Your task to perform on an android device: Show the shopping cart on newegg.com. Add "lg ultragear" to the cart on newegg.com, then select checkout. Image 0: 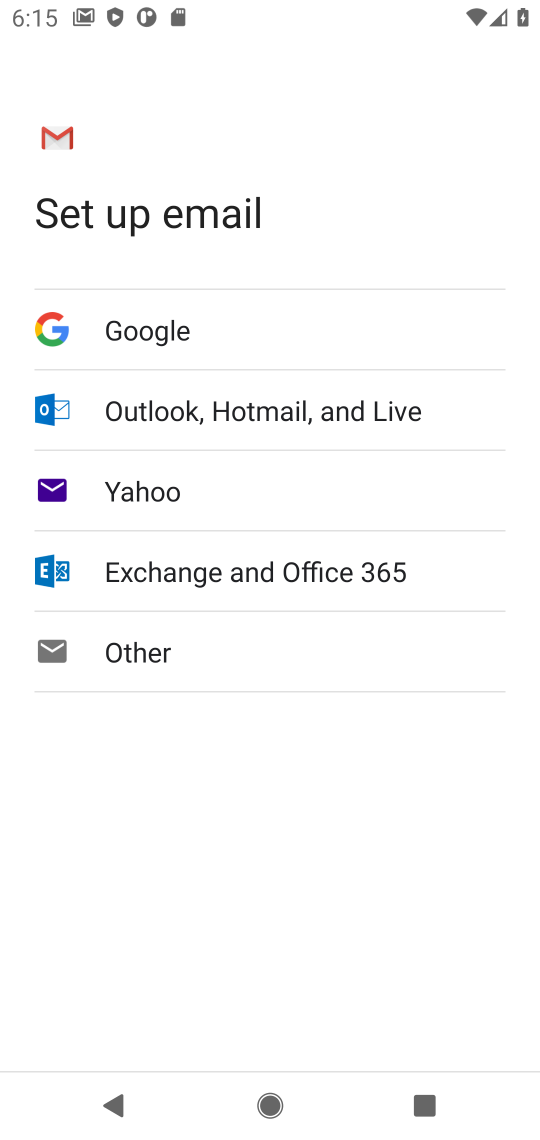
Step 0: press home button
Your task to perform on an android device: Show the shopping cart on newegg.com. Add "lg ultragear" to the cart on newegg.com, then select checkout. Image 1: 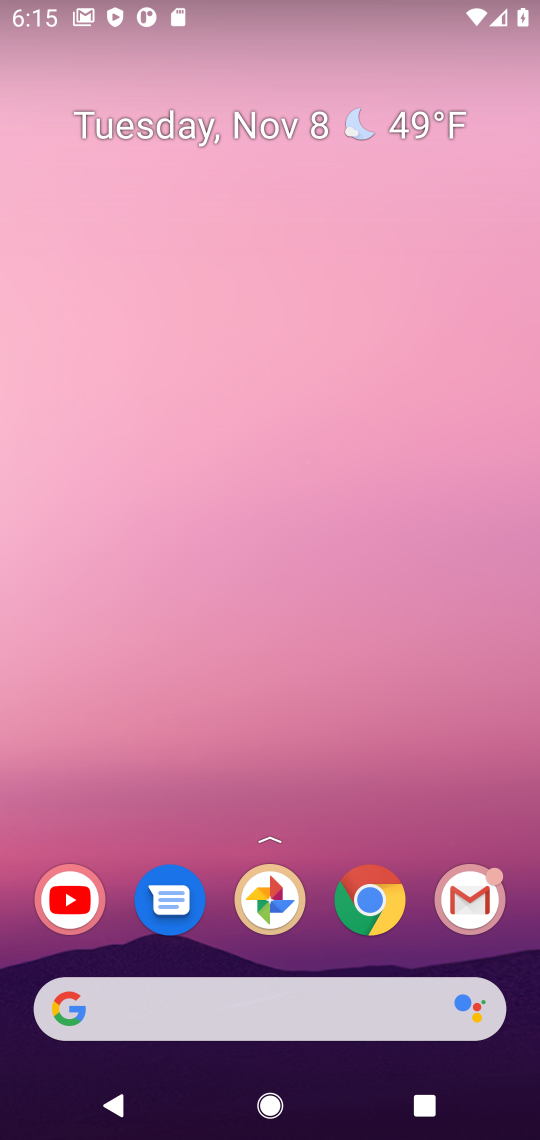
Step 1: click (372, 912)
Your task to perform on an android device: Show the shopping cart on newegg.com. Add "lg ultragear" to the cart on newegg.com, then select checkout. Image 2: 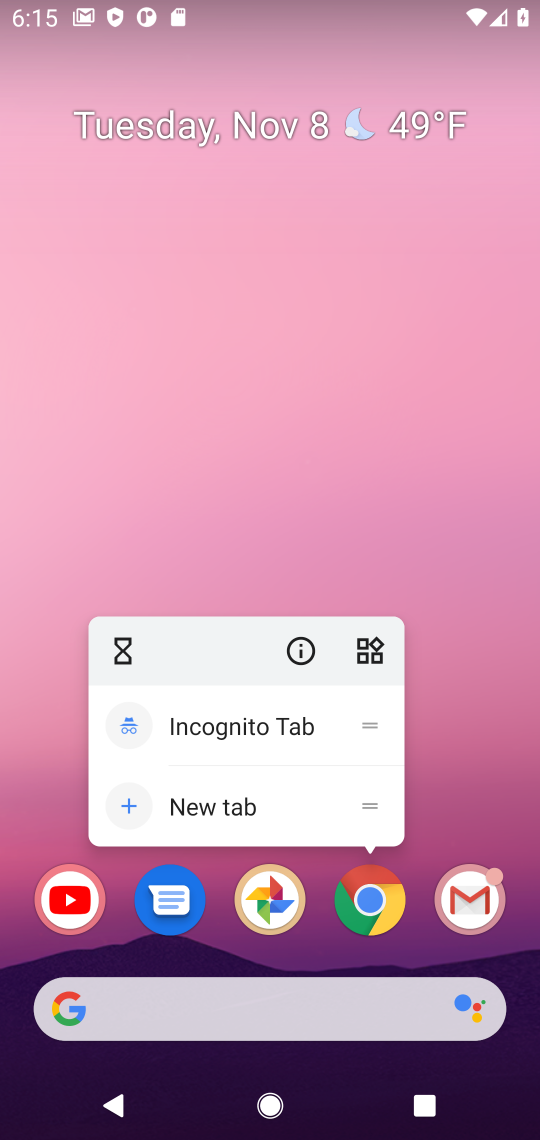
Step 2: click (381, 918)
Your task to perform on an android device: Show the shopping cart on newegg.com. Add "lg ultragear" to the cart on newegg.com, then select checkout. Image 3: 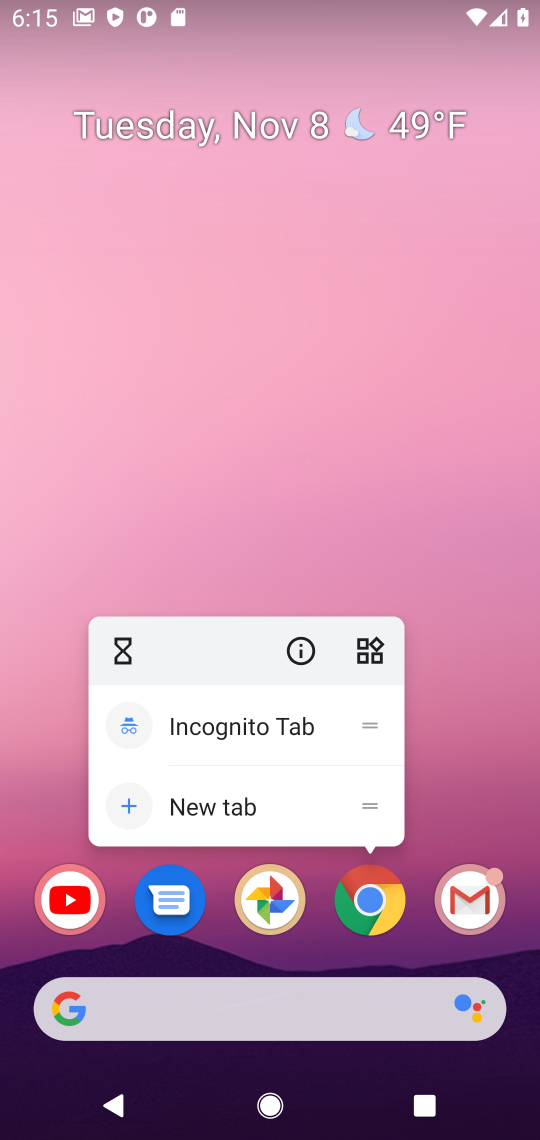
Step 3: click (399, 910)
Your task to perform on an android device: Show the shopping cart on newegg.com. Add "lg ultragear" to the cart on newegg.com, then select checkout. Image 4: 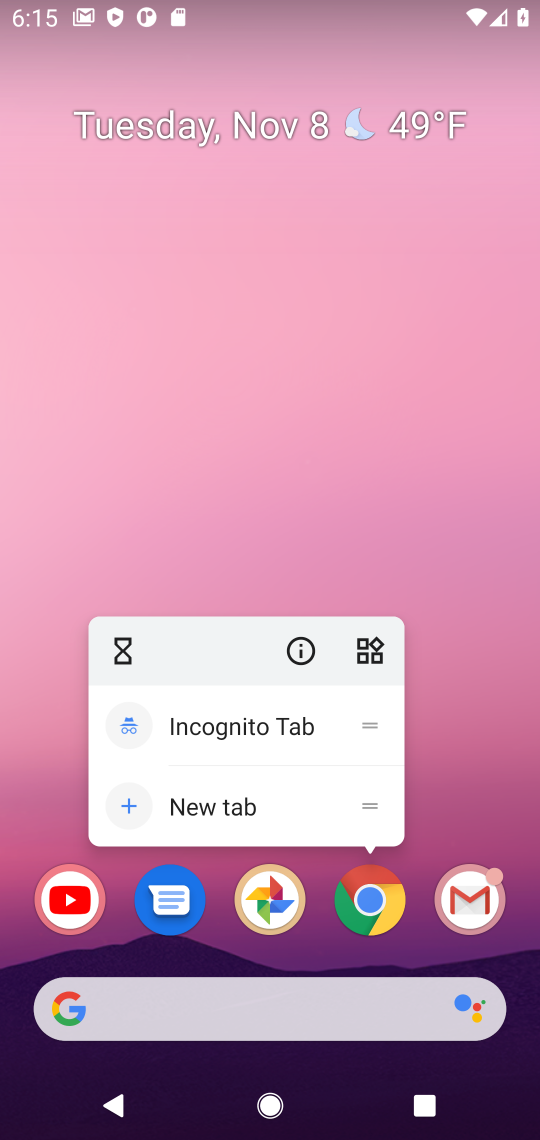
Step 4: click (370, 914)
Your task to perform on an android device: Show the shopping cart on newegg.com. Add "lg ultragear" to the cart on newegg.com, then select checkout. Image 5: 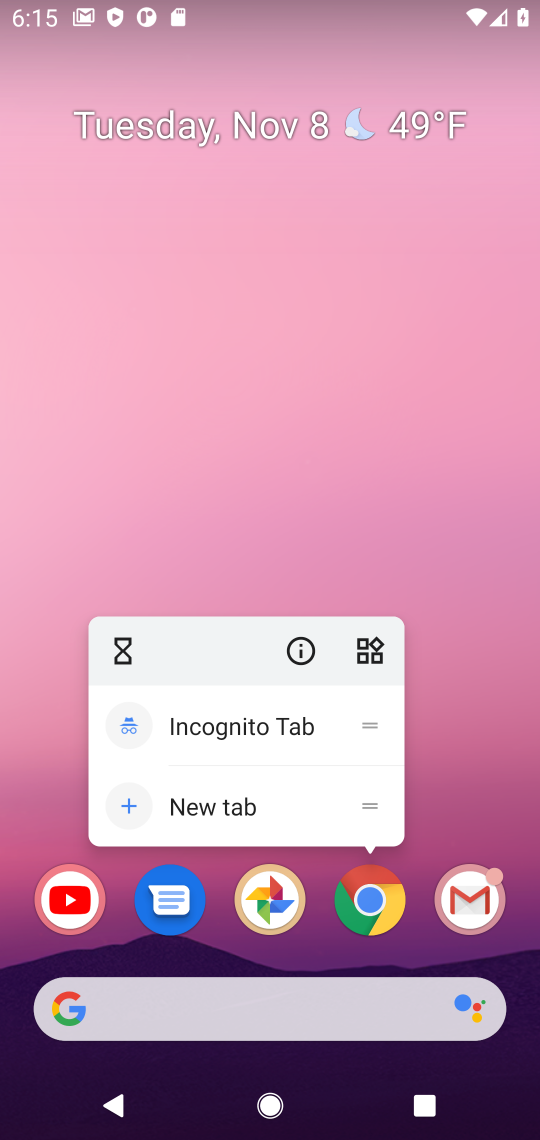
Step 5: click (356, 918)
Your task to perform on an android device: Show the shopping cart on newegg.com. Add "lg ultragear" to the cart on newegg.com, then select checkout. Image 6: 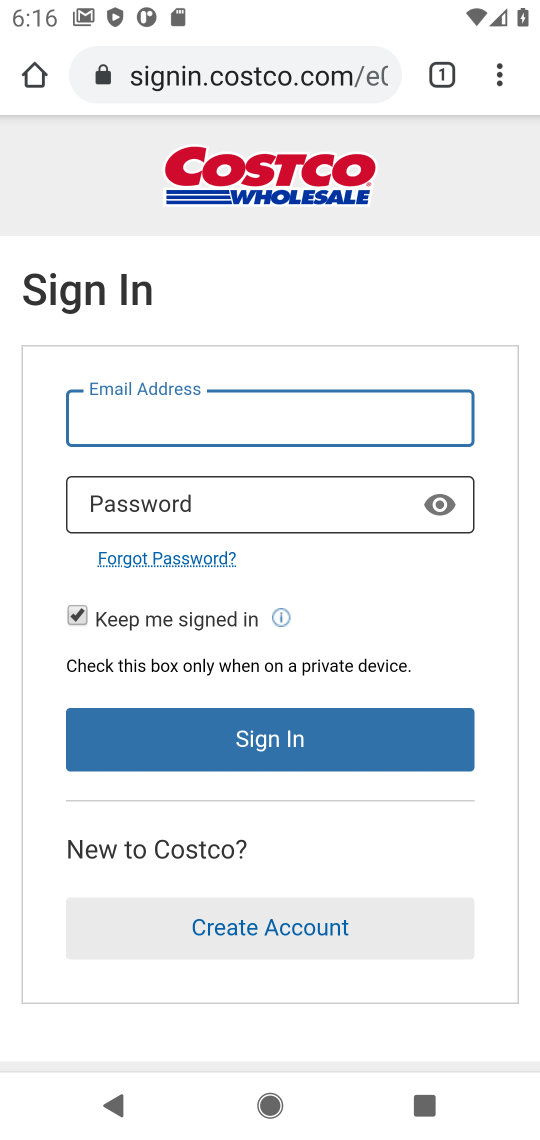
Step 6: click (264, 66)
Your task to perform on an android device: Show the shopping cart on newegg.com. Add "lg ultragear" to the cart on newegg.com, then select checkout. Image 7: 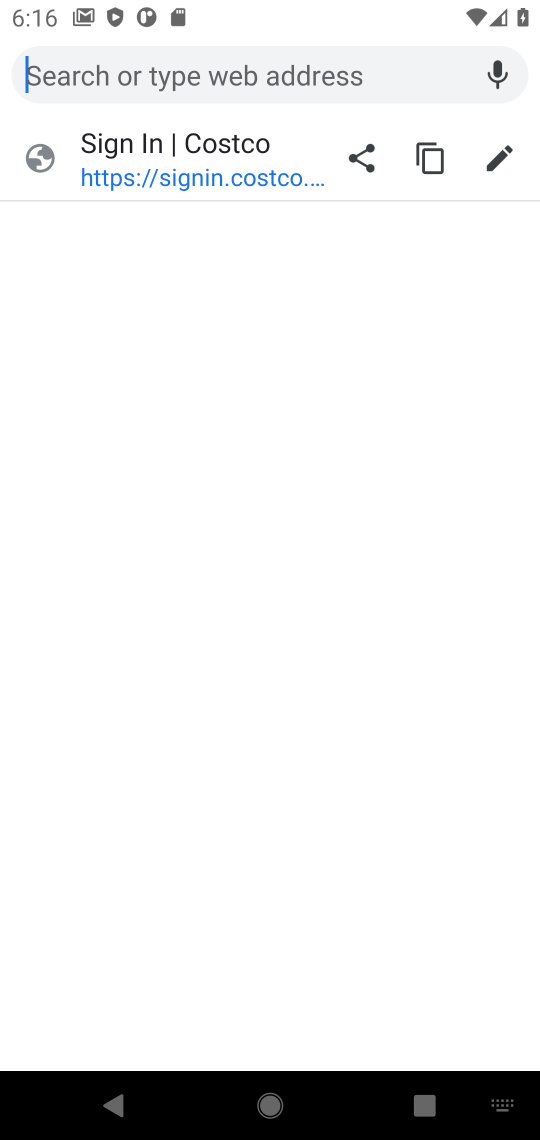
Step 7: type "newegg.com"
Your task to perform on an android device: Show the shopping cart on newegg.com. Add "lg ultragear" to the cart on newegg.com, then select checkout. Image 8: 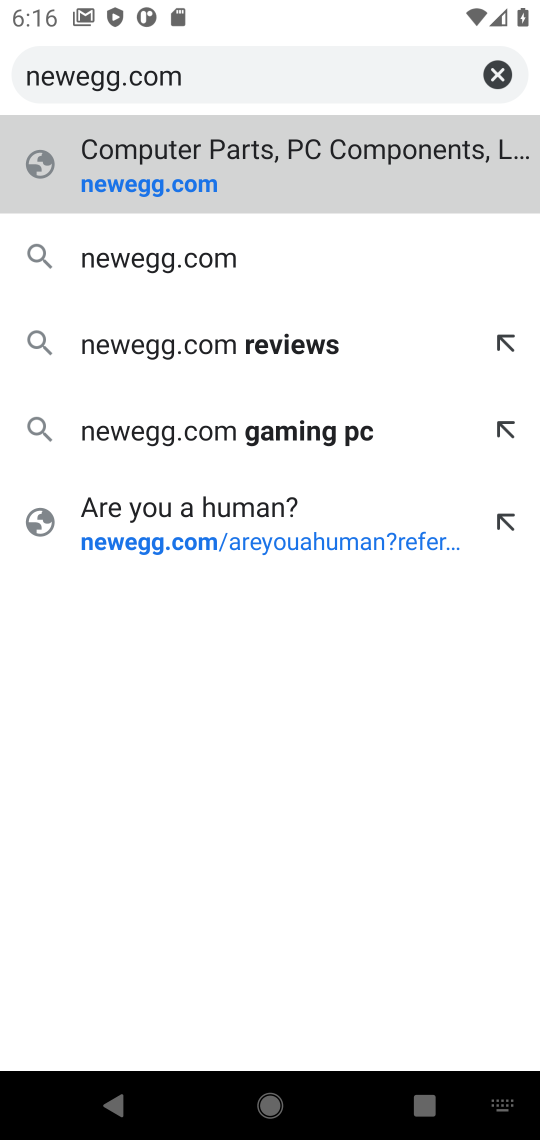
Step 8: type ""
Your task to perform on an android device: Show the shopping cart on newegg.com. Add "lg ultragear" to the cart on newegg.com, then select checkout. Image 9: 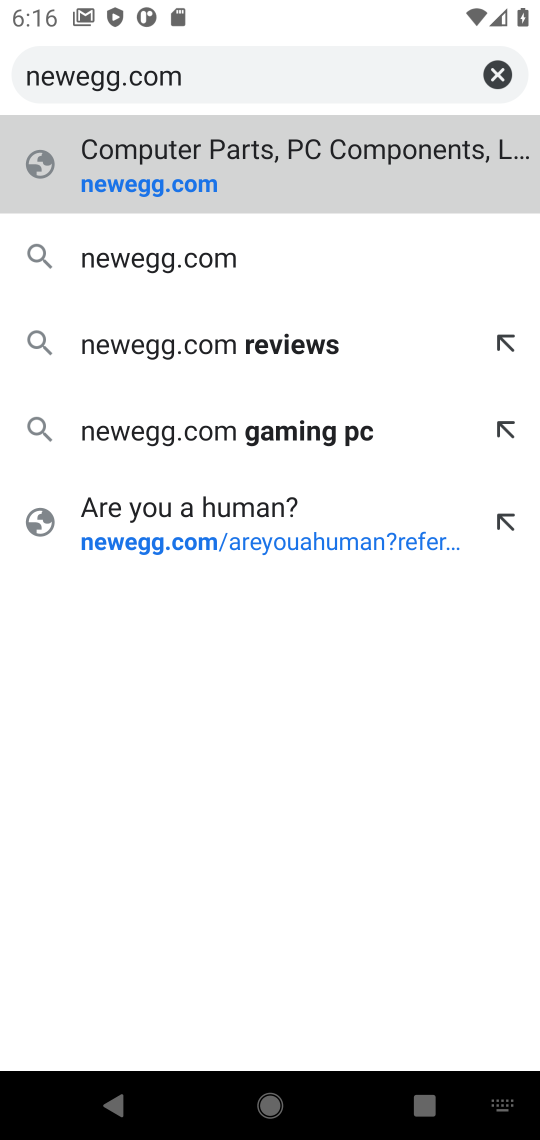
Step 9: press enter
Your task to perform on an android device: Show the shopping cart on newegg.com. Add "lg ultragear" to the cart on newegg.com, then select checkout. Image 10: 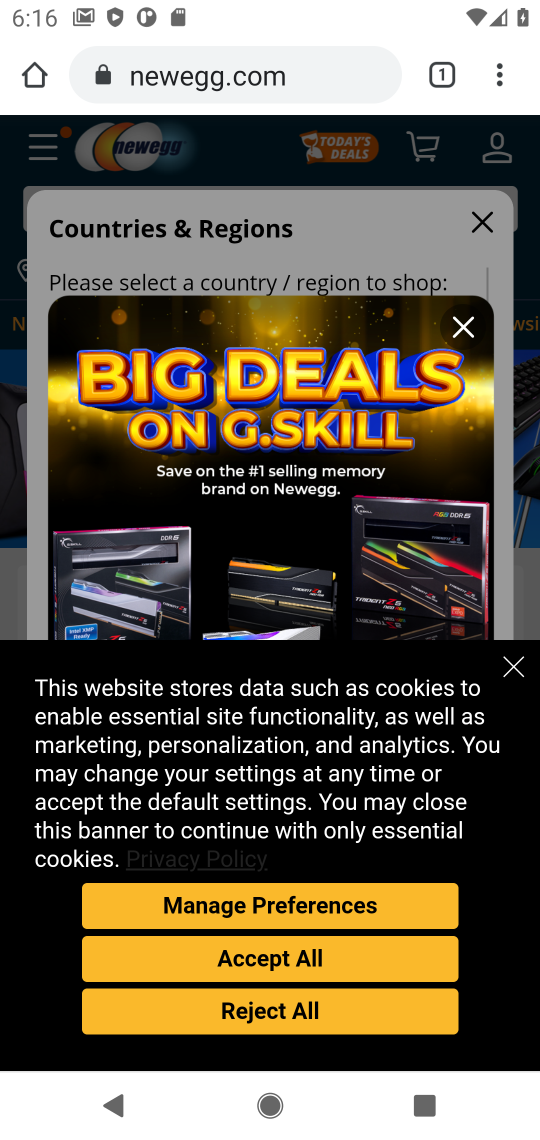
Step 10: click (362, 959)
Your task to perform on an android device: Show the shopping cart on newegg.com. Add "lg ultragear" to the cart on newegg.com, then select checkout. Image 11: 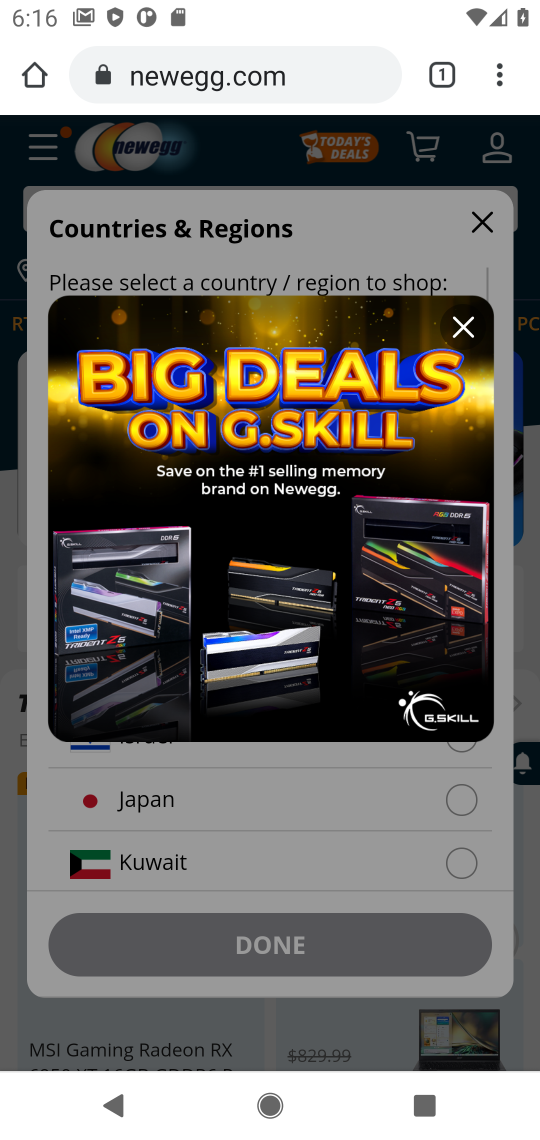
Step 11: click (466, 330)
Your task to perform on an android device: Show the shopping cart on newegg.com. Add "lg ultragear" to the cart on newegg.com, then select checkout. Image 12: 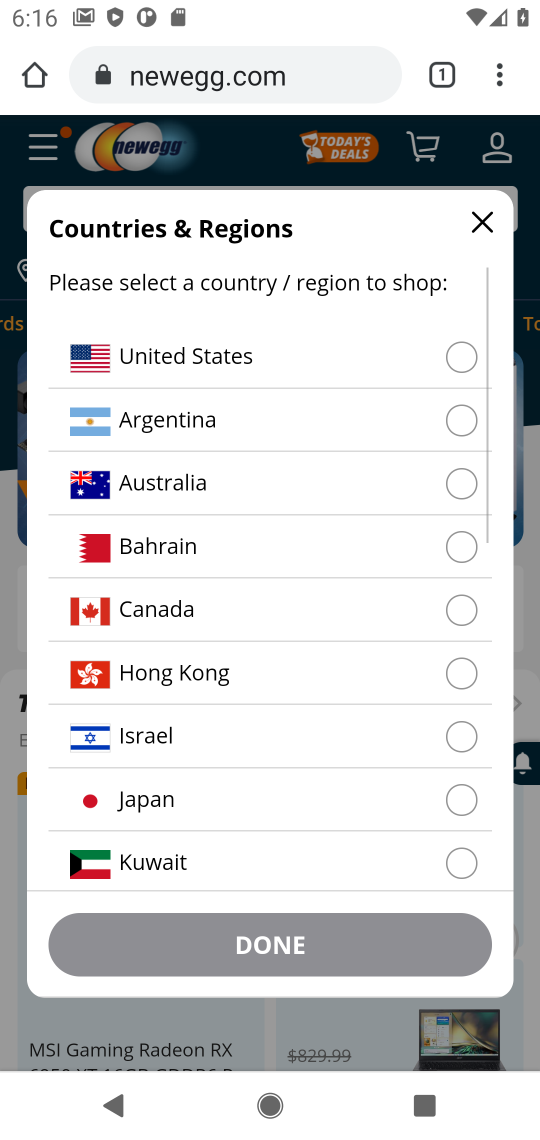
Step 12: click (464, 362)
Your task to perform on an android device: Show the shopping cart on newegg.com. Add "lg ultragear" to the cart on newegg.com, then select checkout. Image 13: 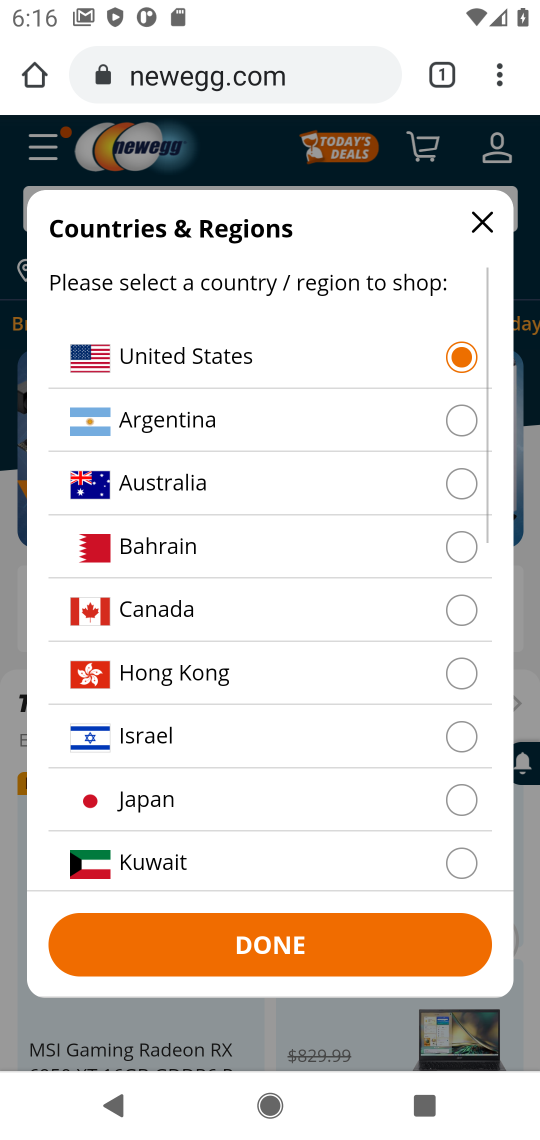
Step 13: click (305, 960)
Your task to perform on an android device: Show the shopping cart on newegg.com. Add "lg ultragear" to the cart on newegg.com, then select checkout. Image 14: 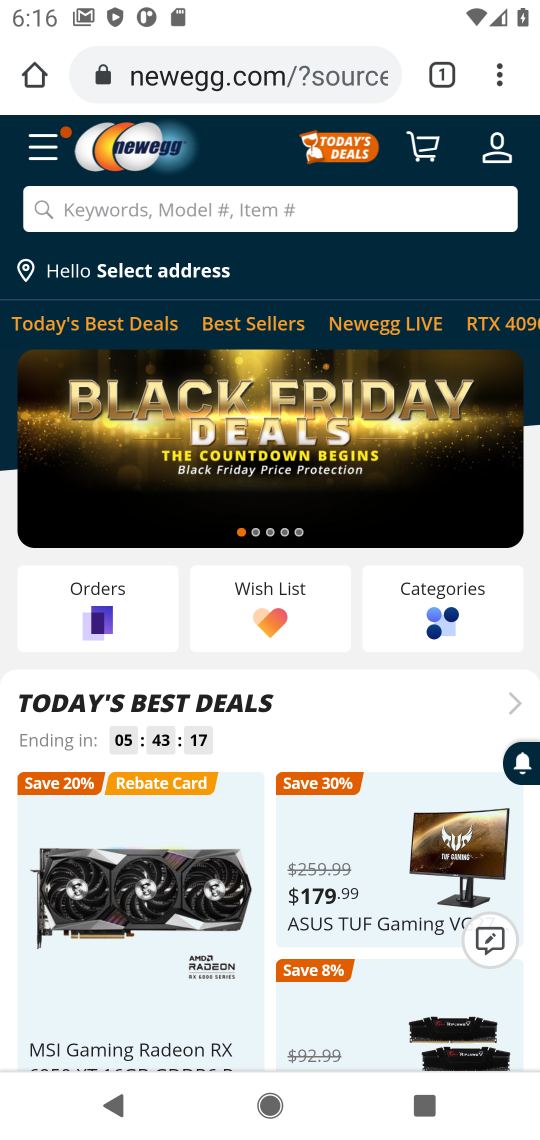
Step 14: click (436, 148)
Your task to perform on an android device: Show the shopping cart on newegg.com. Add "lg ultragear" to the cart on newegg.com, then select checkout. Image 15: 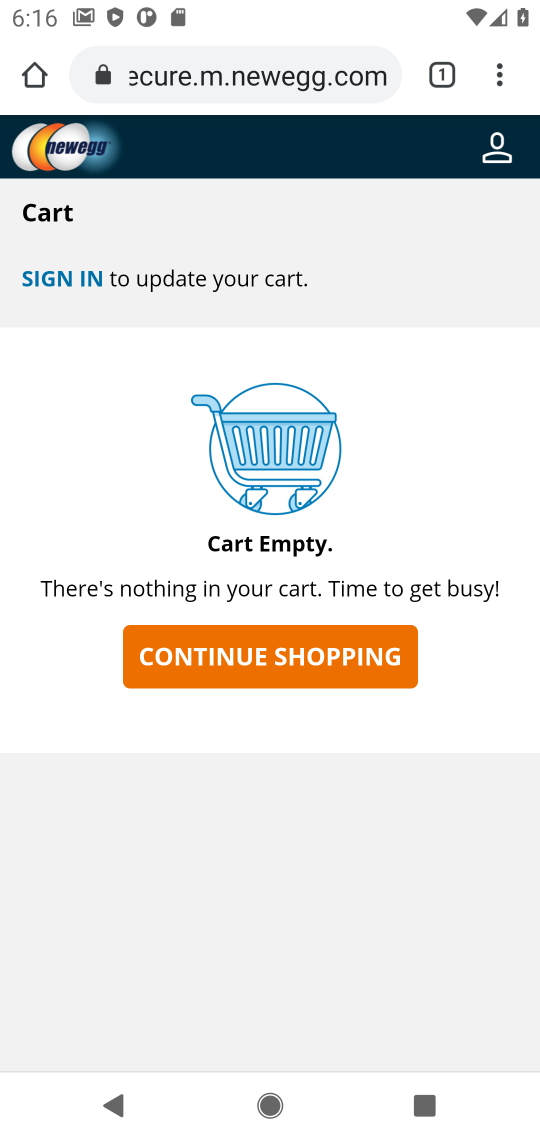
Step 15: click (300, 663)
Your task to perform on an android device: Show the shopping cart on newegg.com. Add "lg ultragear" to the cart on newegg.com, then select checkout. Image 16: 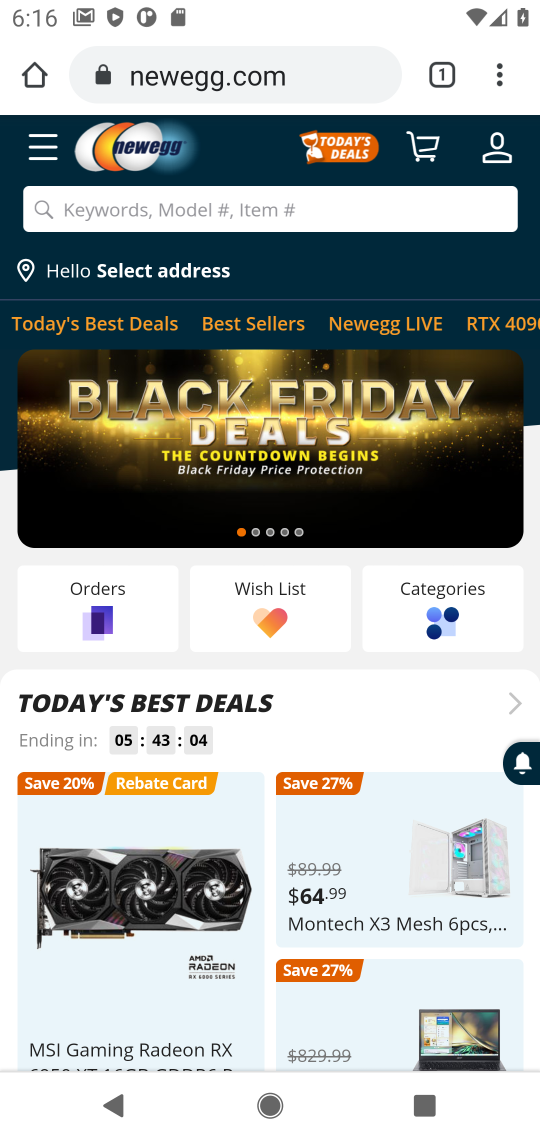
Step 16: click (253, 203)
Your task to perform on an android device: Show the shopping cart on newegg.com. Add "lg ultragear" to the cart on newegg.com, then select checkout. Image 17: 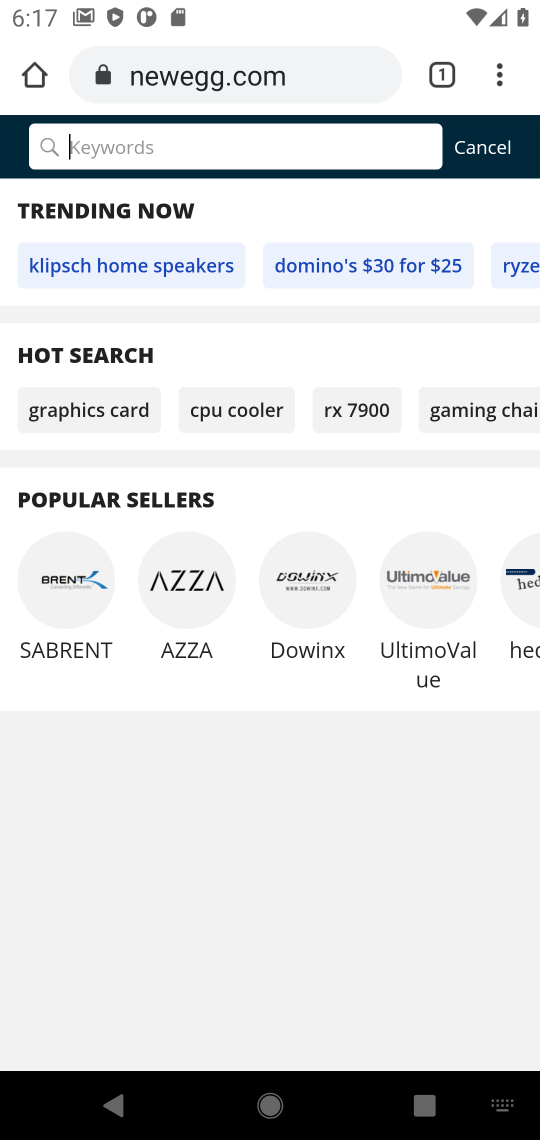
Step 17: type "lg ultragear"
Your task to perform on an android device: Show the shopping cart on newegg.com. Add "lg ultragear" to the cart on newegg.com, then select checkout. Image 18: 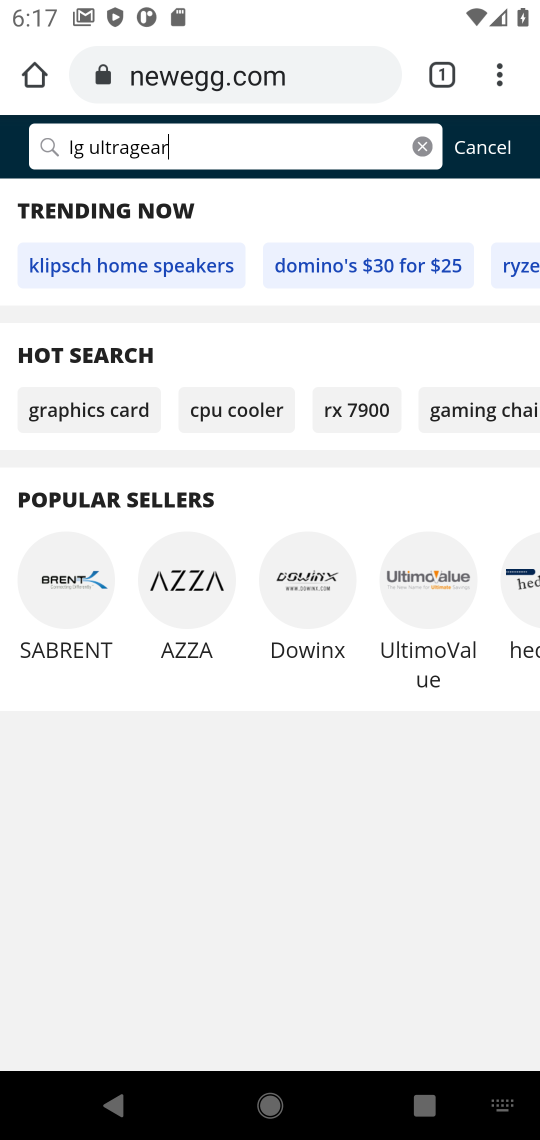
Step 18: type ""
Your task to perform on an android device: Show the shopping cart on newegg.com. Add "lg ultragear" to the cart on newegg.com, then select checkout. Image 19: 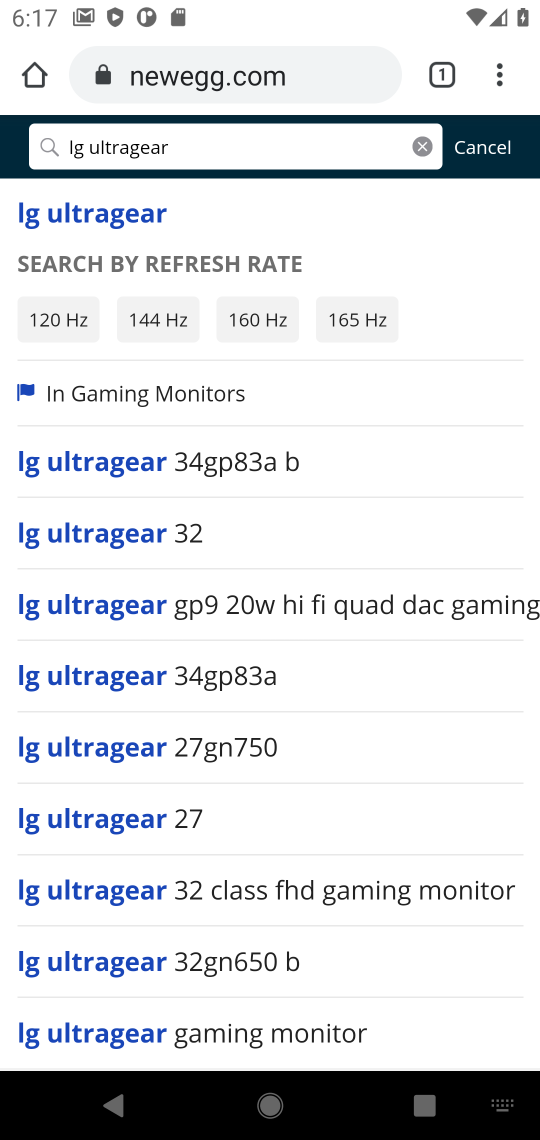
Step 19: press enter
Your task to perform on an android device: Show the shopping cart on newegg.com. Add "lg ultragear" to the cart on newegg.com, then select checkout. Image 20: 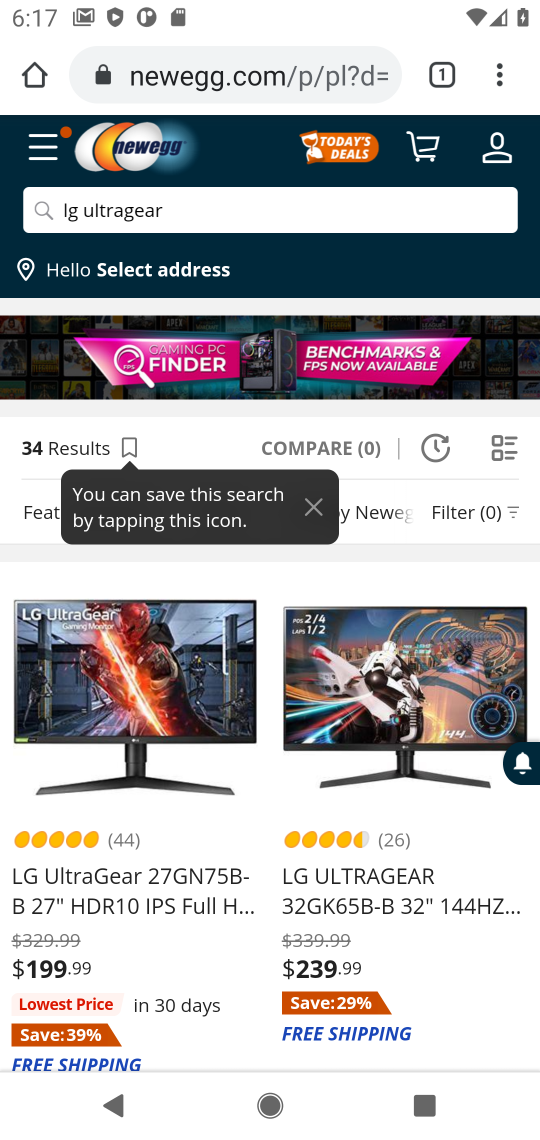
Step 20: click (112, 900)
Your task to perform on an android device: Show the shopping cart on newegg.com. Add "lg ultragear" to the cart on newegg.com, then select checkout. Image 21: 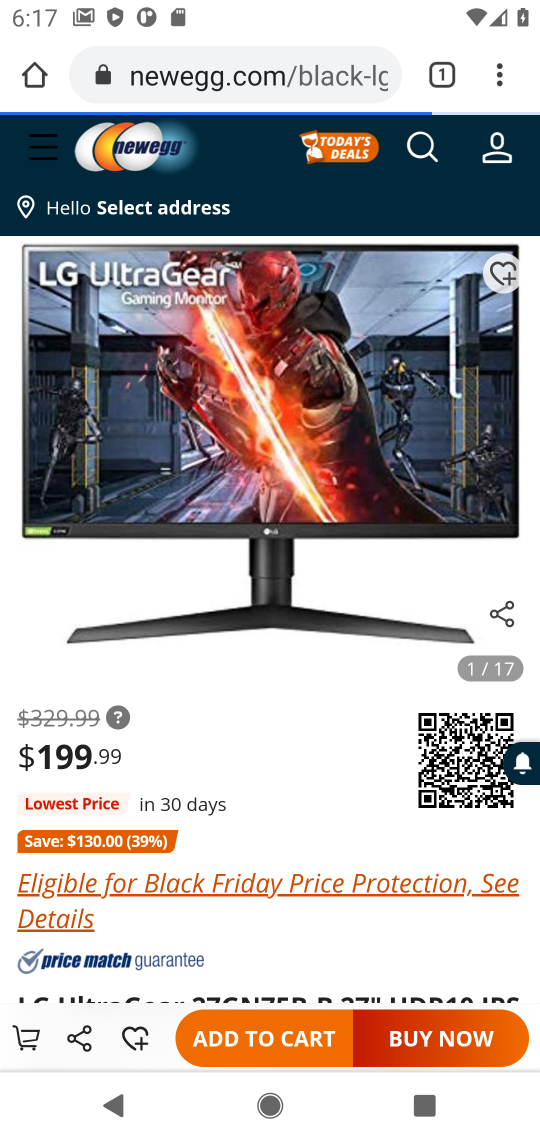
Step 21: click (289, 1038)
Your task to perform on an android device: Show the shopping cart on newegg.com. Add "lg ultragear" to the cart on newegg.com, then select checkout. Image 22: 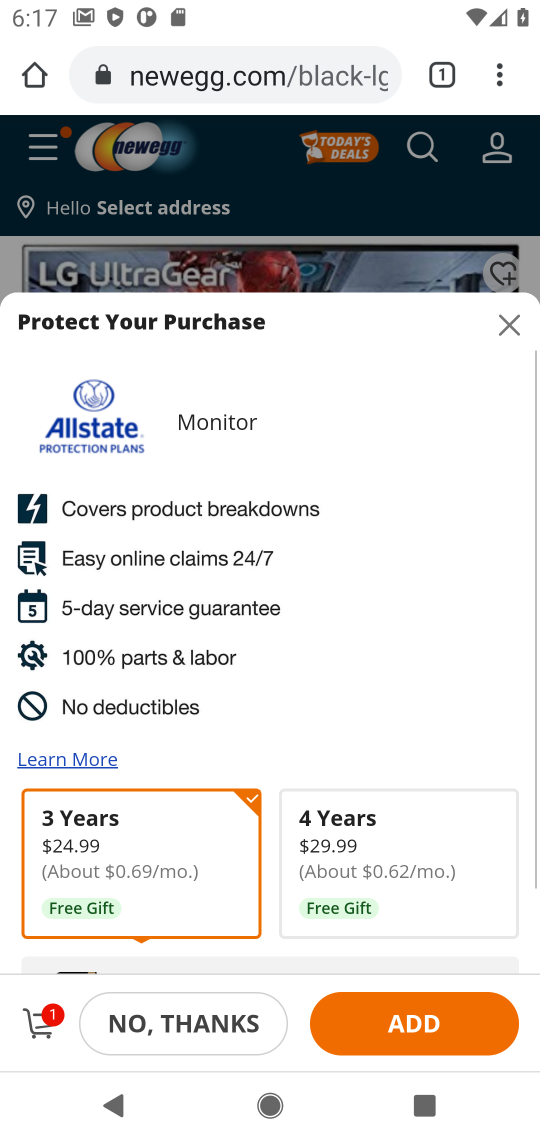
Step 22: click (217, 1024)
Your task to perform on an android device: Show the shopping cart on newegg.com. Add "lg ultragear" to the cart on newegg.com, then select checkout. Image 23: 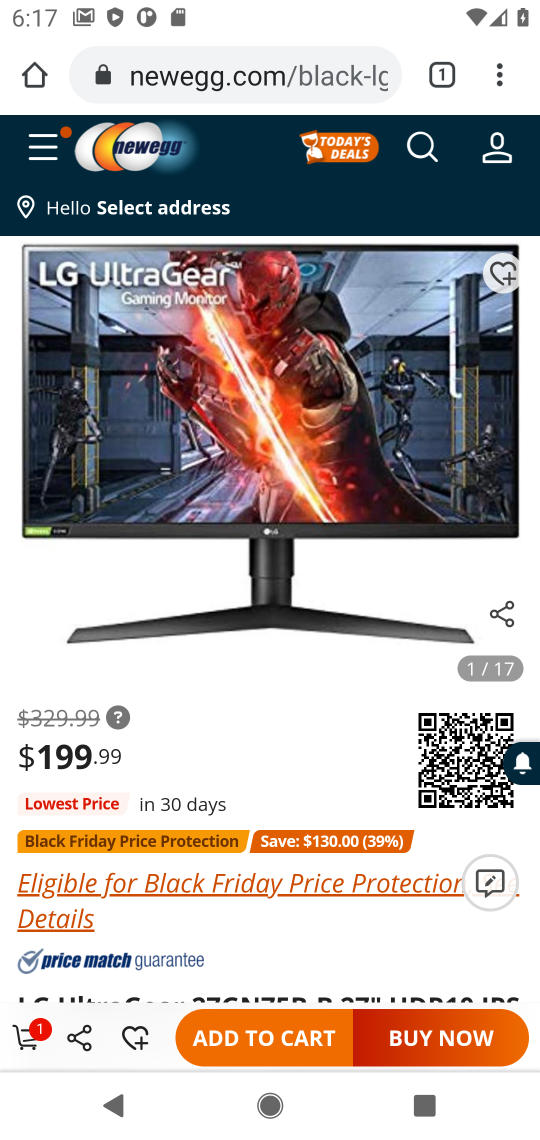
Step 23: click (36, 1048)
Your task to perform on an android device: Show the shopping cart on newegg.com. Add "lg ultragear" to the cart on newegg.com, then select checkout. Image 24: 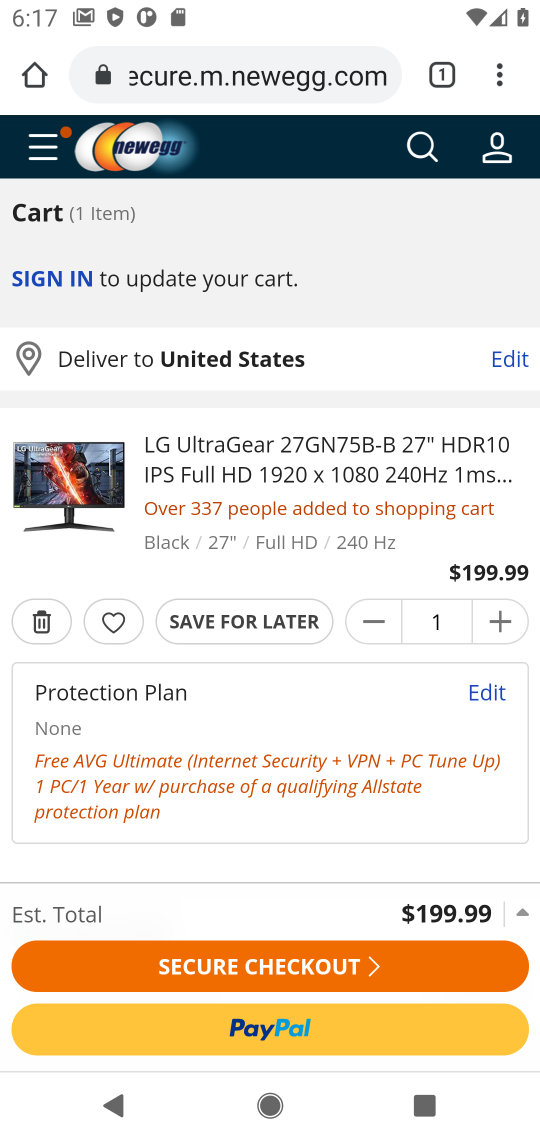
Step 24: click (318, 961)
Your task to perform on an android device: Show the shopping cart on newegg.com. Add "lg ultragear" to the cart on newegg.com, then select checkout. Image 25: 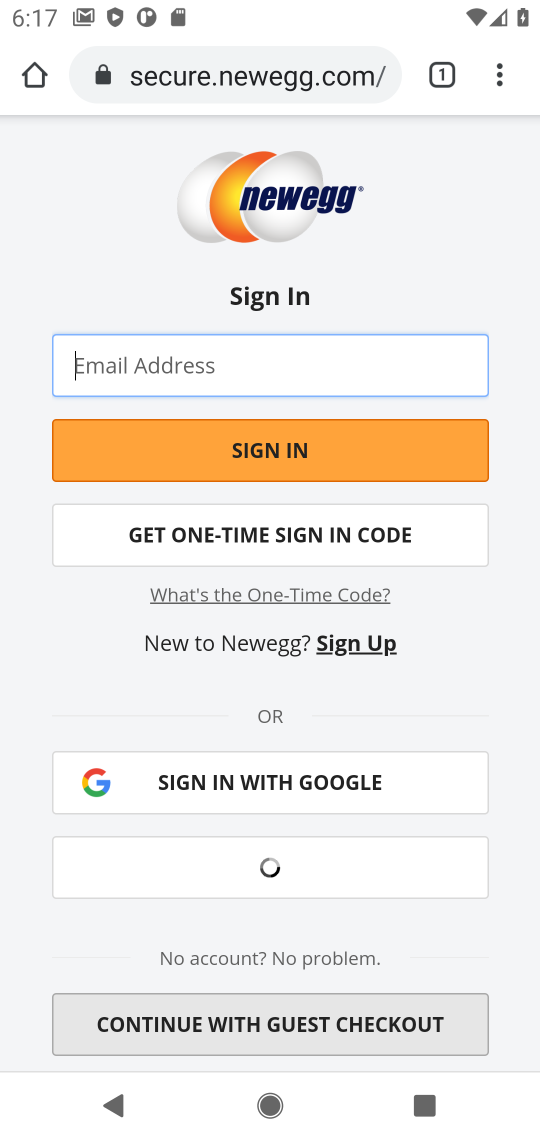
Step 25: task complete